Your task to perform on an android device: Toggle the flashlight Image 0: 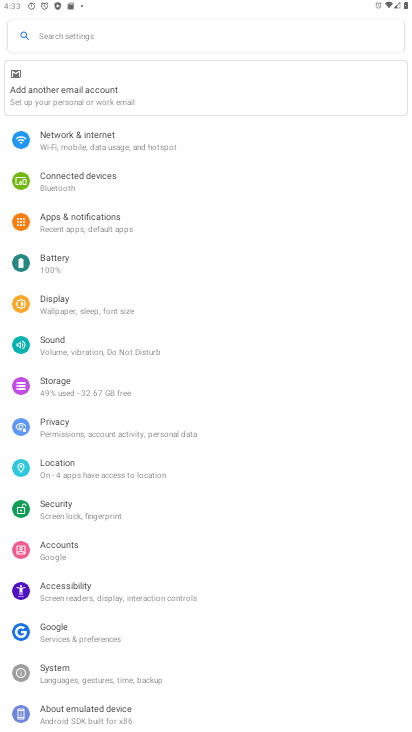
Step 0: drag from (205, 3) to (213, 388)
Your task to perform on an android device: Toggle the flashlight Image 1: 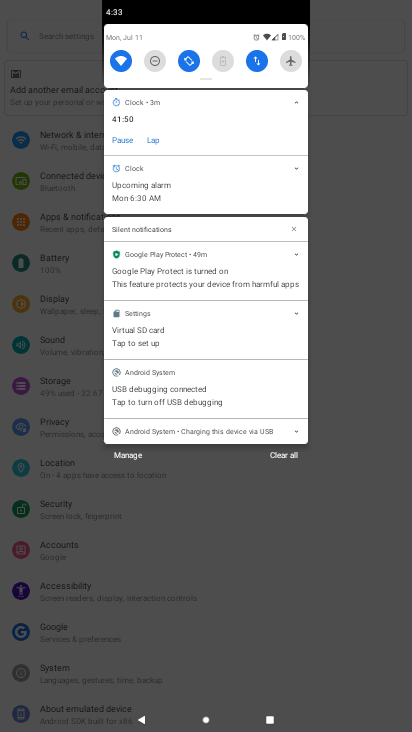
Step 1: task complete